Your task to perform on an android device: change the clock display to analog Image 0: 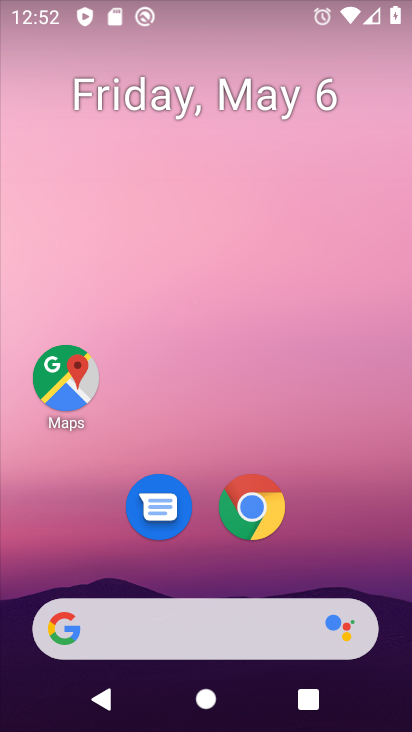
Step 0: drag from (134, 595) to (345, 10)
Your task to perform on an android device: change the clock display to analog Image 1: 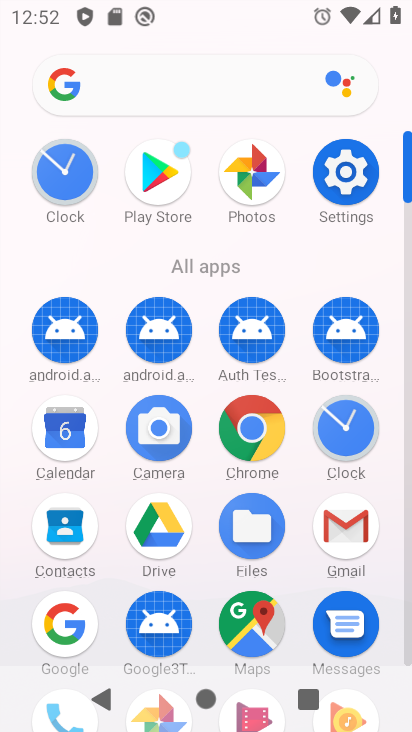
Step 1: click (321, 425)
Your task to perform on an android device: change the clock display to analog Image 2: 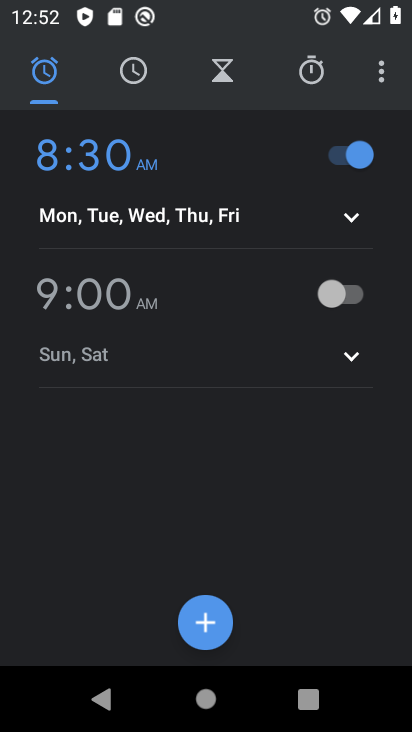
Step 2: click (388, 75)
Your task to perform on an android device: change the clock display to analog Image 3: 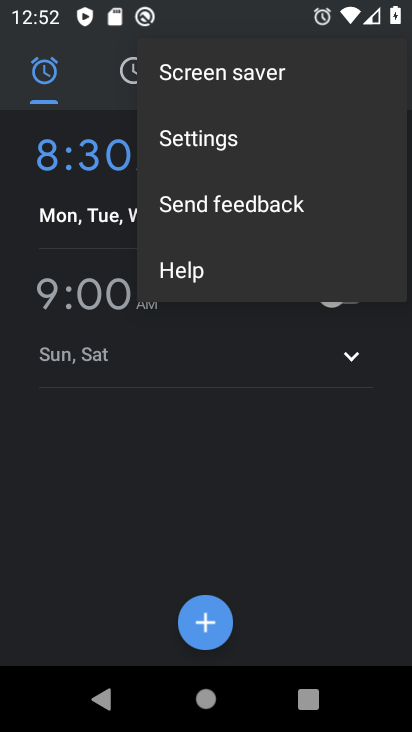
Step 3: click (337, 140)
Your task to perform on an android device: change the clock display to analog Image 4: 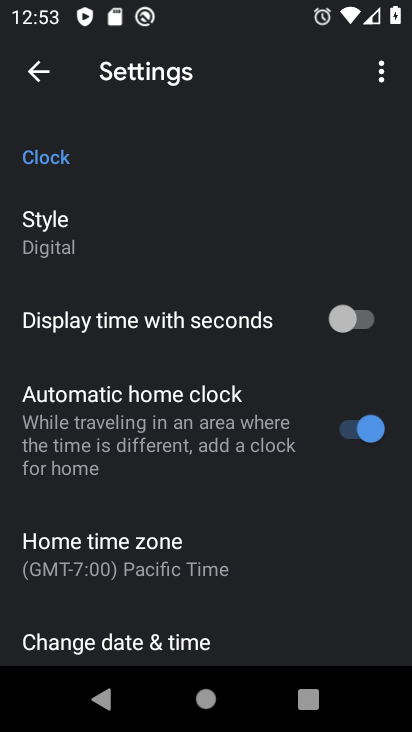
Step 4: click (163, 218)
Your task to perform on an android device: change the clock display to analog Image 5: 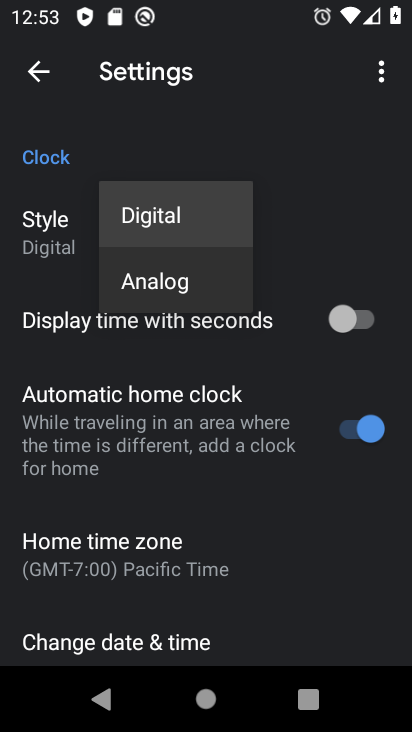
Step 5: click (166, 298)
Your task to perform on an android device: change the clock display to analog Image 6: 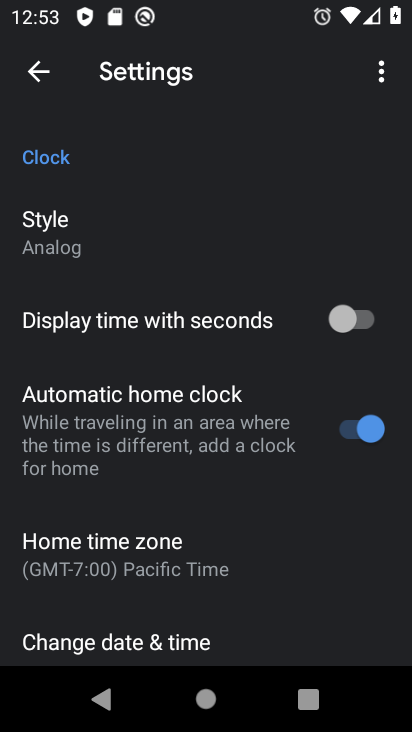
Step 6: task complete